Your task to perform on an android device: Search for Mexican restaurants on Maps Image 0: 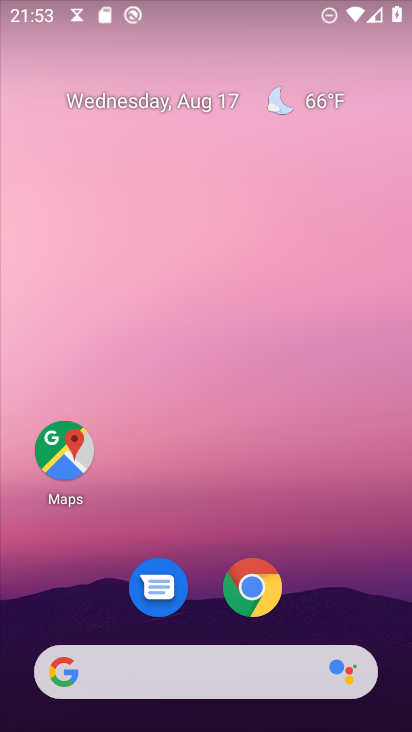
Step 0: click (79, 453)
Your task to perform on an android device: Search for Mexican restaurants on Maps Image 1: 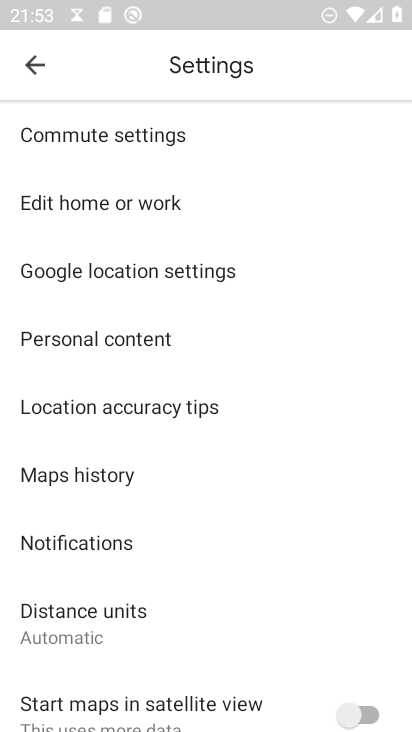
Step 1: press back button
Your task to perform on an android device: Search for Mexican restaurants on Maps Image 2: 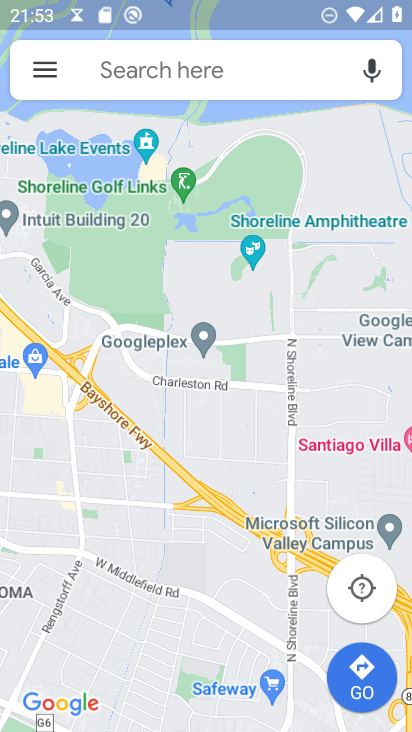
Step 2: click (121, 64)
Your task to perform on an android device: Search for Mexican restaurants on Maps Image 3: 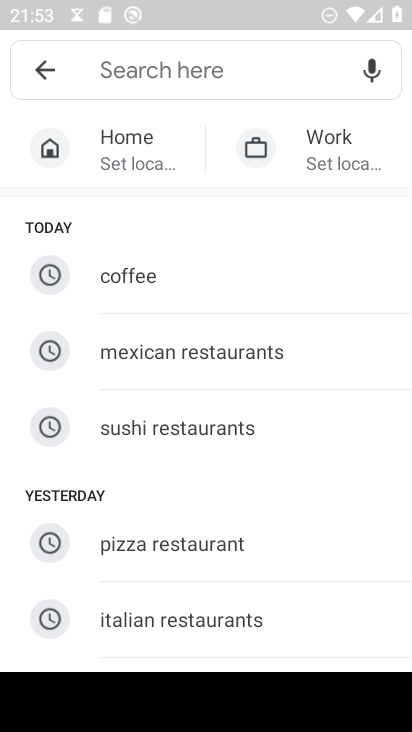
Step 3: click (216, 347)
Your task to perform on an android device: Search for Mexican restaurants on Maps Image 4: 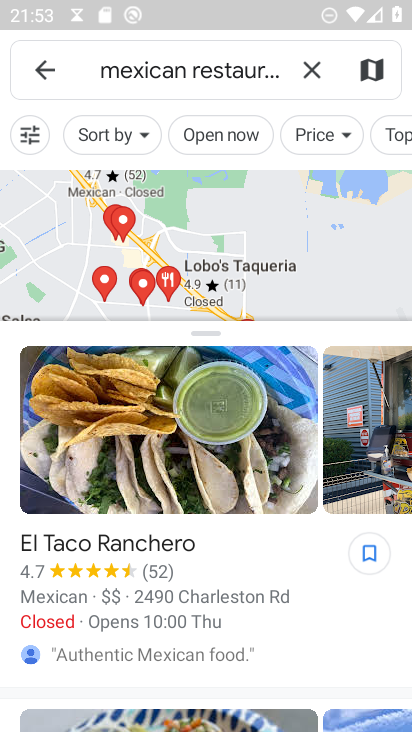
Step 4: task complete